Your task to perform on an android device: change timer sound Image 0: 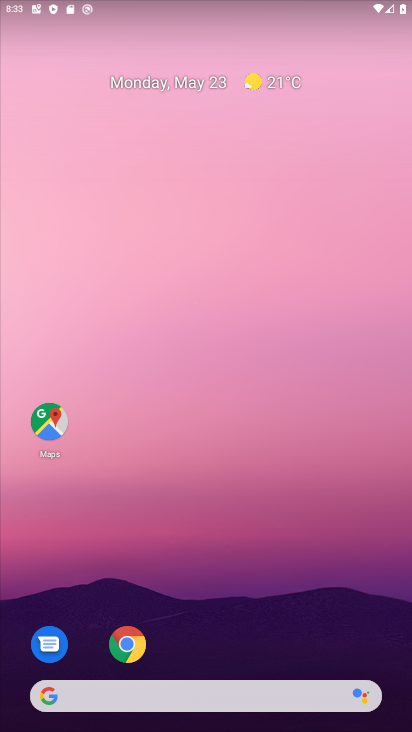
Step 0: drag from (170, 725) to (79, 35)
Your task to perform on an android device: change timer sound Image 1: 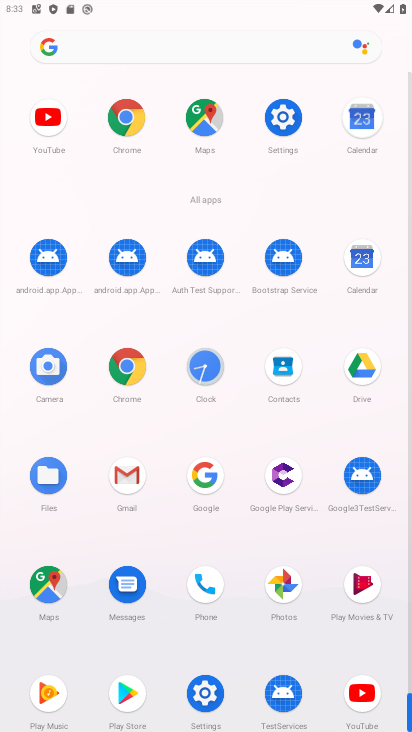
Step 1: click (284, 115)
Your task to perform on an android device: change timer sound Image 2: 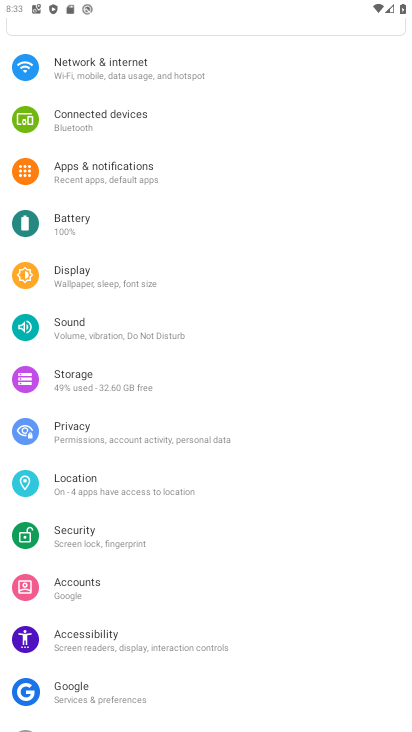
Step 2: press home button
Your task to perform on an android device: change timer sound Image 3: 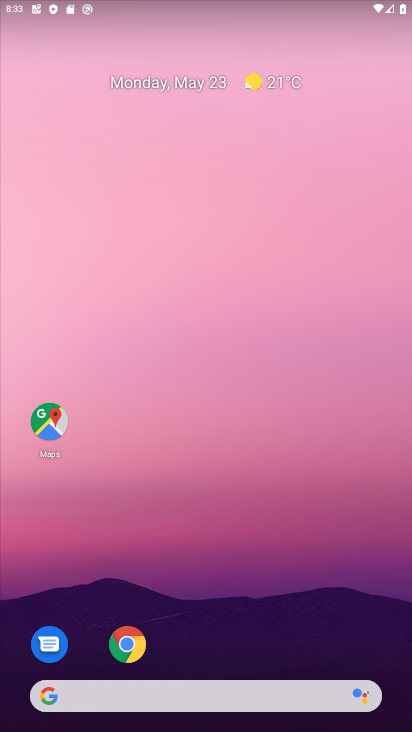
Step 3: drag from (287, 717) to (200, 106)
Your task to perform on an android device: change timer sound Image 4: 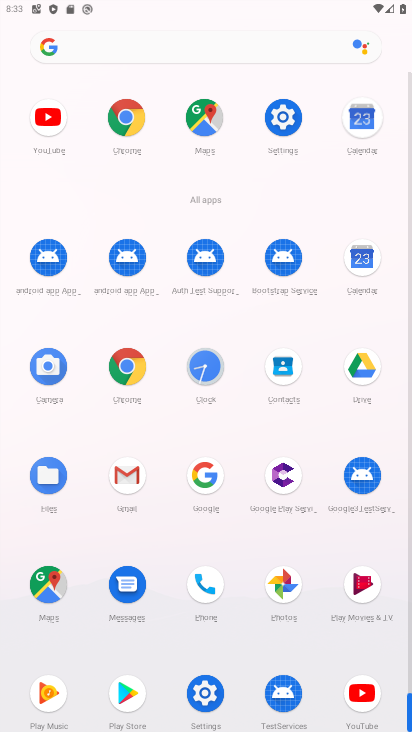
Step 4: click (282, 119)
Your task to perform on an android device: change timer sound Image 5: 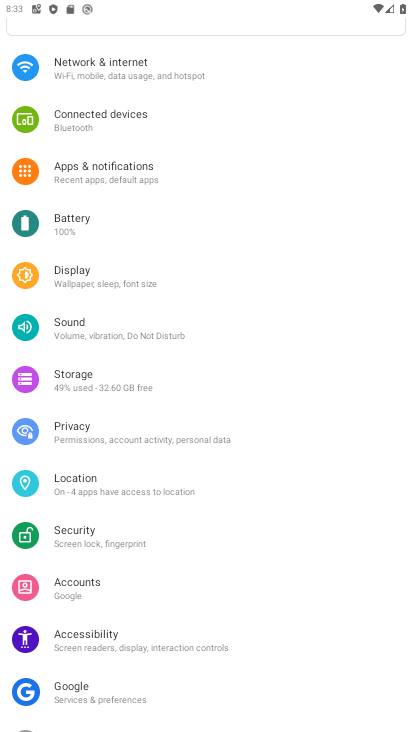
Step 5: press home button
Your task to perform on an android device: change timer sound Image 6: 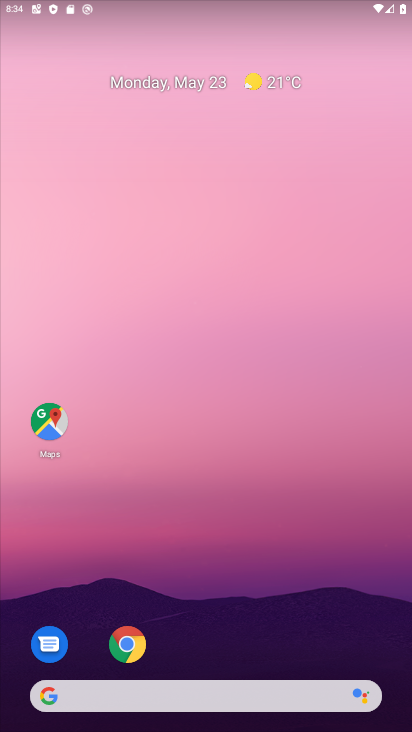
Step 6: drag from (282, 719) to (148, 100)
Your task to perform on an android device: change timer sound Image 7: 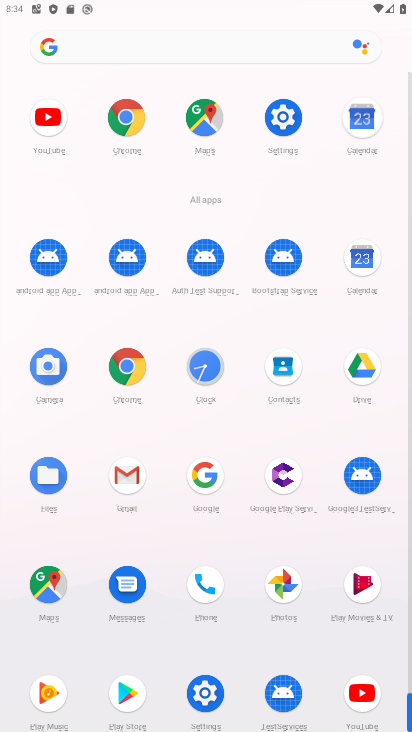
Step 7: click (202, 367)
Your task to perform on an android device: change timer sound Image 8: 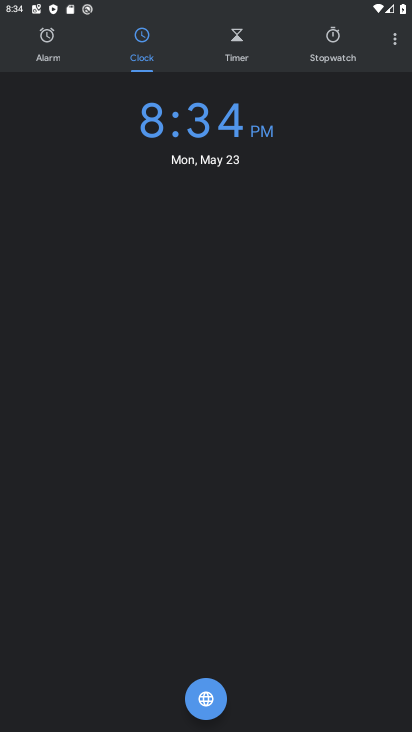
Step 8: click (395, 35)
Your task to perform on an android device: change timer sound Image 9: 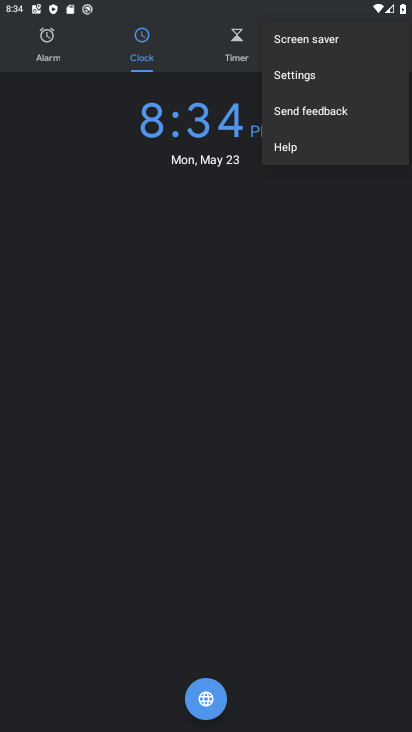
Step 9: click (293, 75)
Your task to perform on an android device: change timer sound Image 10: 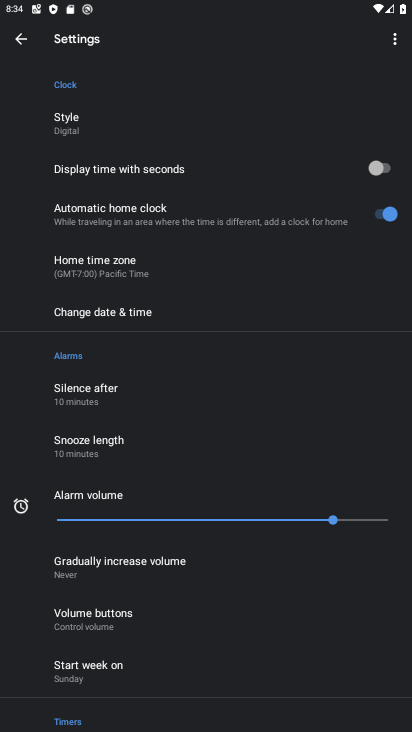
Step 10: drag from (203, 644) to (185, 144)
Your task to perform on an android device: change timer sound Image 11: 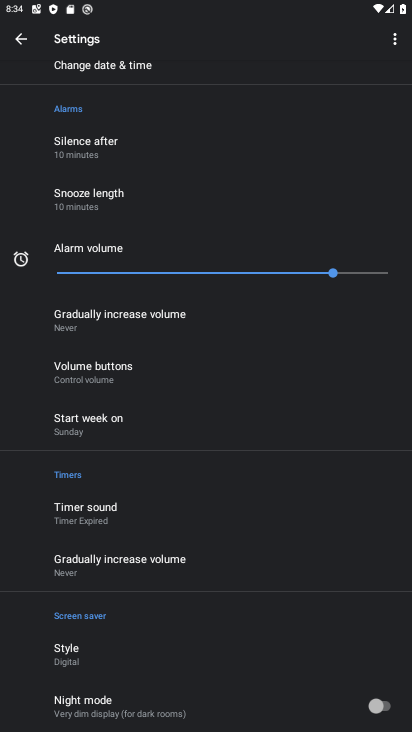
Step 11: click (125, 517)
Your task to perform on an android device: change timer sound Image 12: 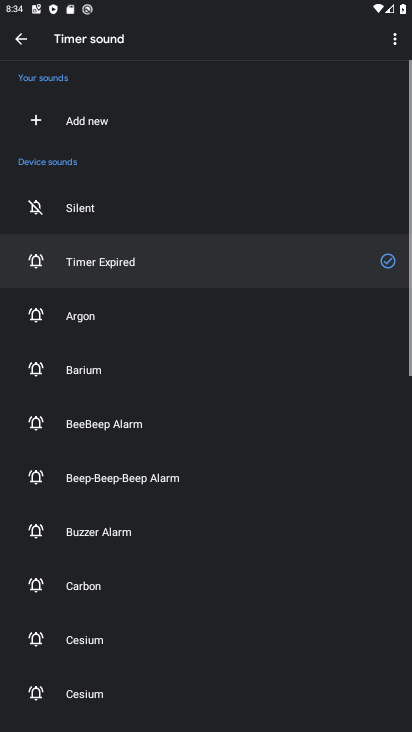
Step 12: click (104, 584)
Your task to perform on an android device: change timer sound Image 13: 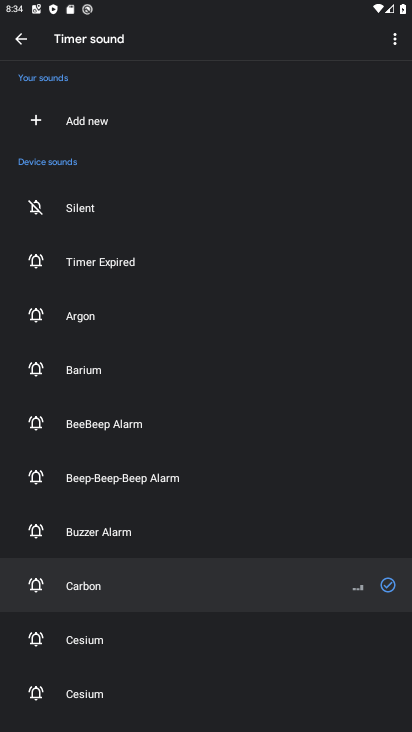
Step 13: task complete